Your task to perform on an android device: Go to privacy settings Image 0: 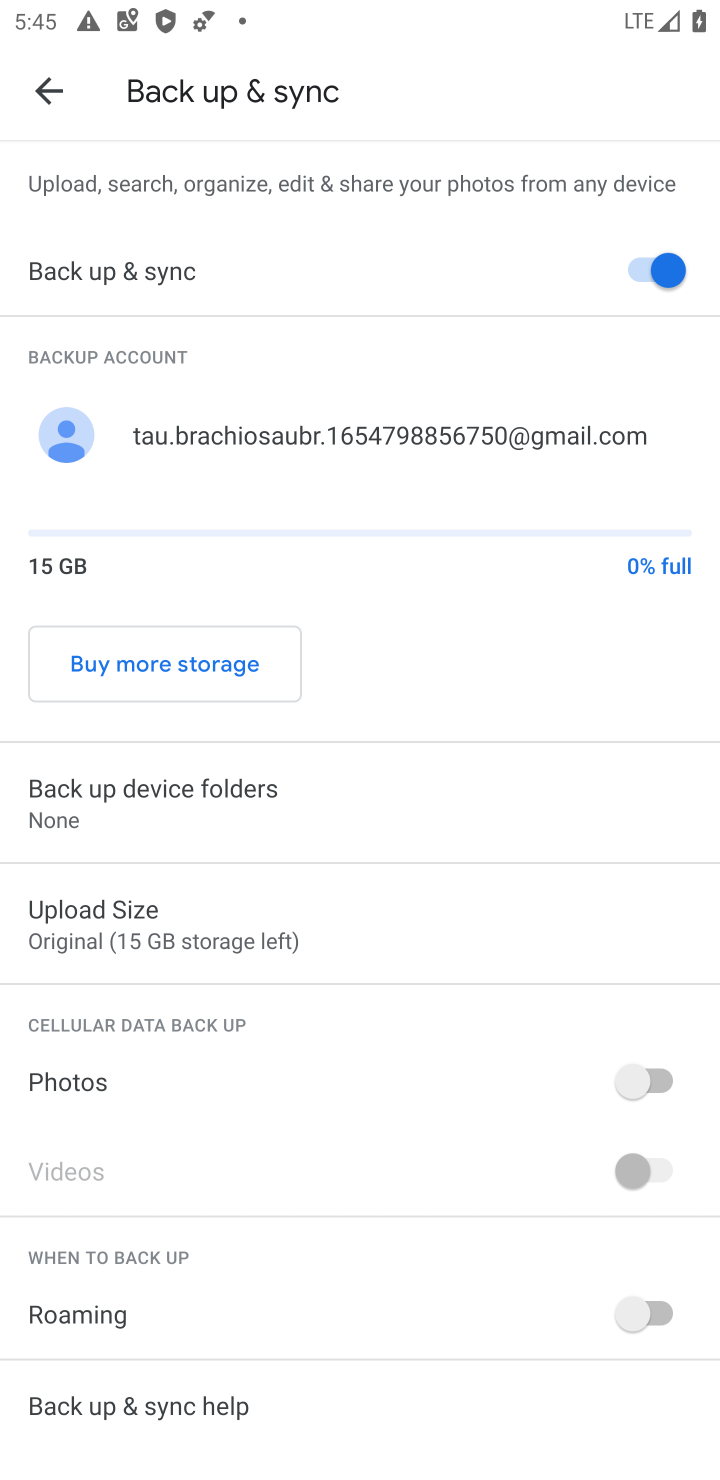
Step 0: press home button
Your task to perform on an android device: Go to privacy settings Image 1: 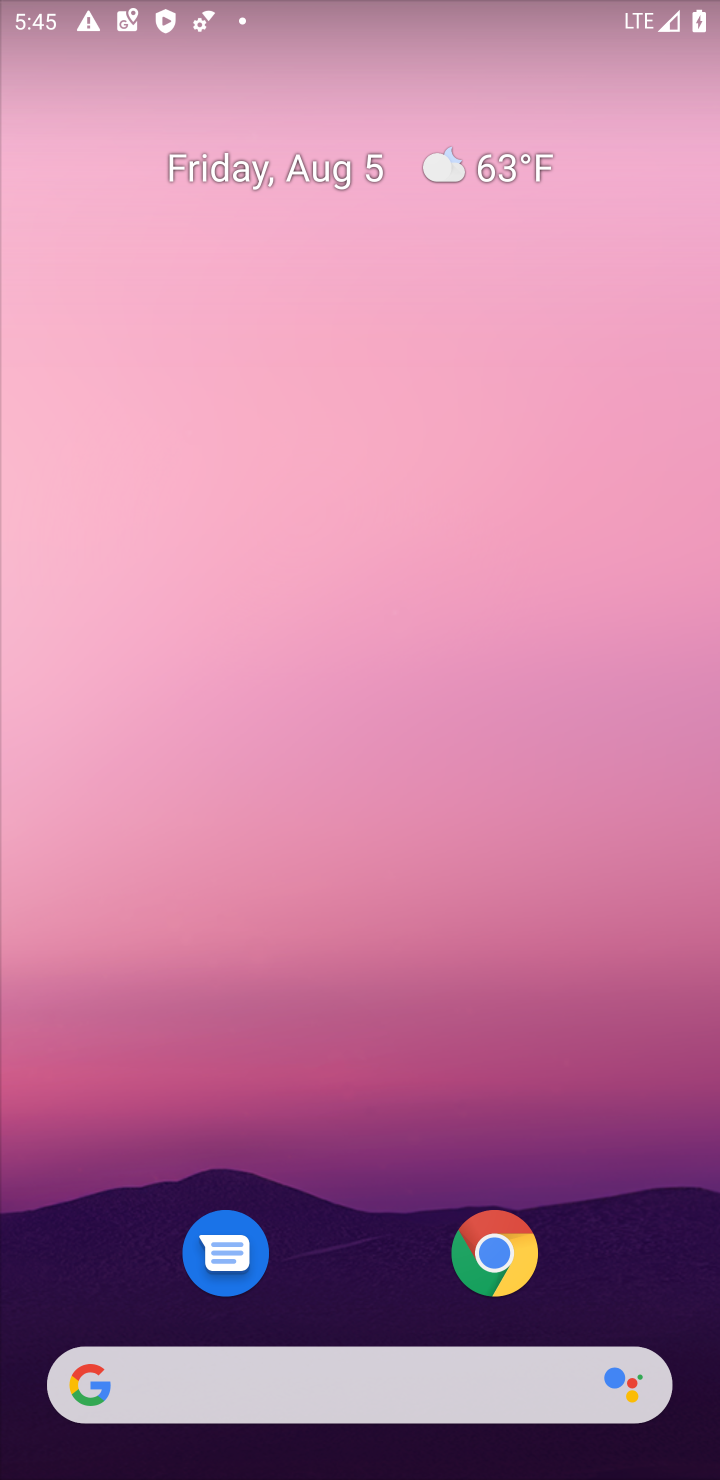
Step 1: drag from (342, 1226) to (393, 374)
Your task to perform on an android device: Go to privacy settings Image 2: 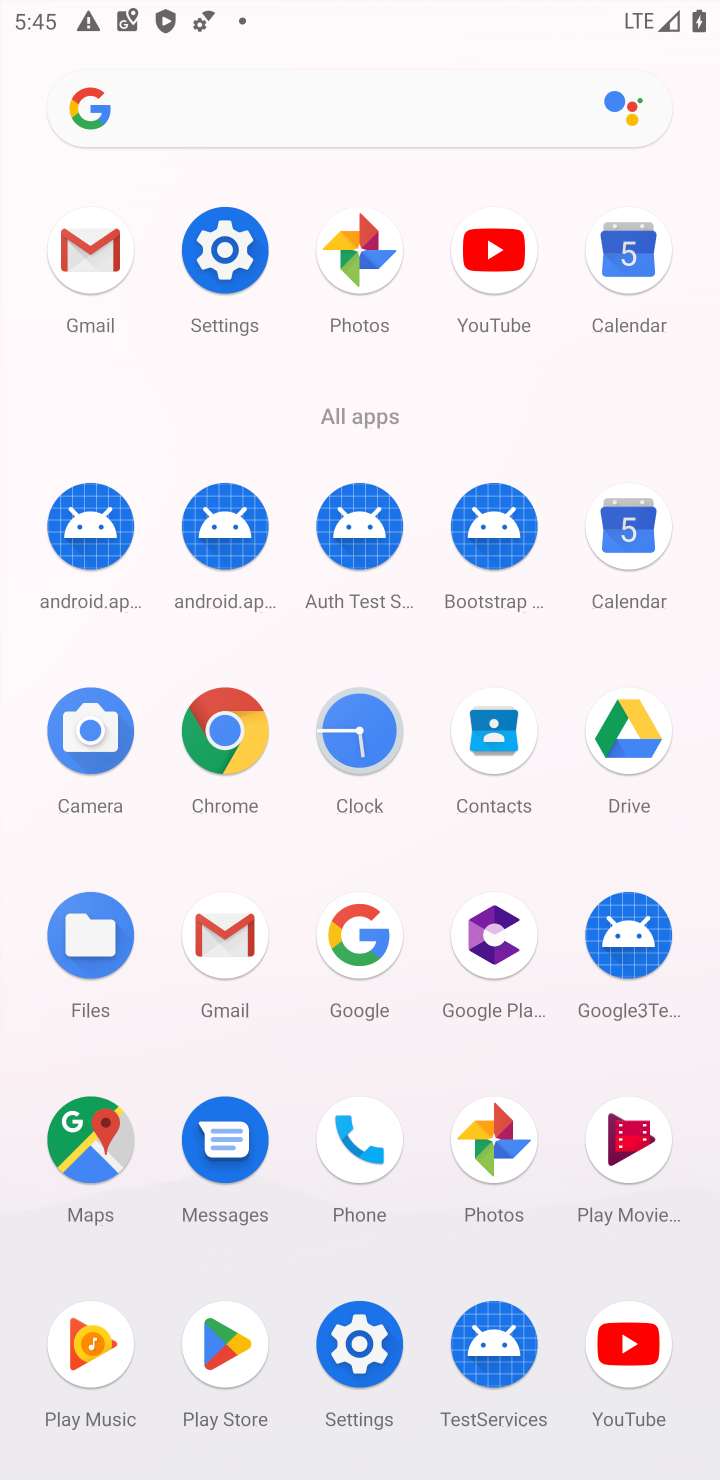
Step 2: click (226, 271)
Your task to perform on an android device: Go to privacy settings Image 3: 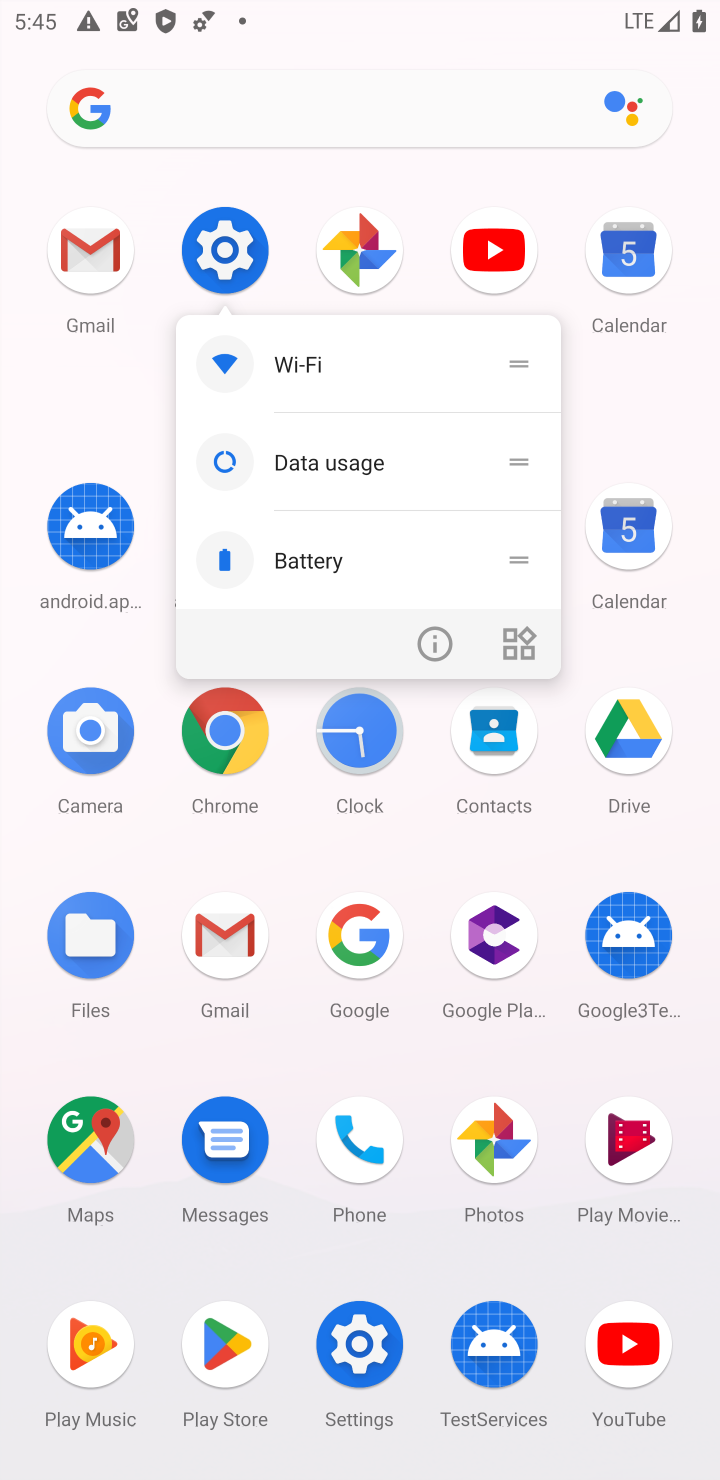
Step 3: click (226, 271)
Your task to perform on an android device: Go to privacy settings Image 4: 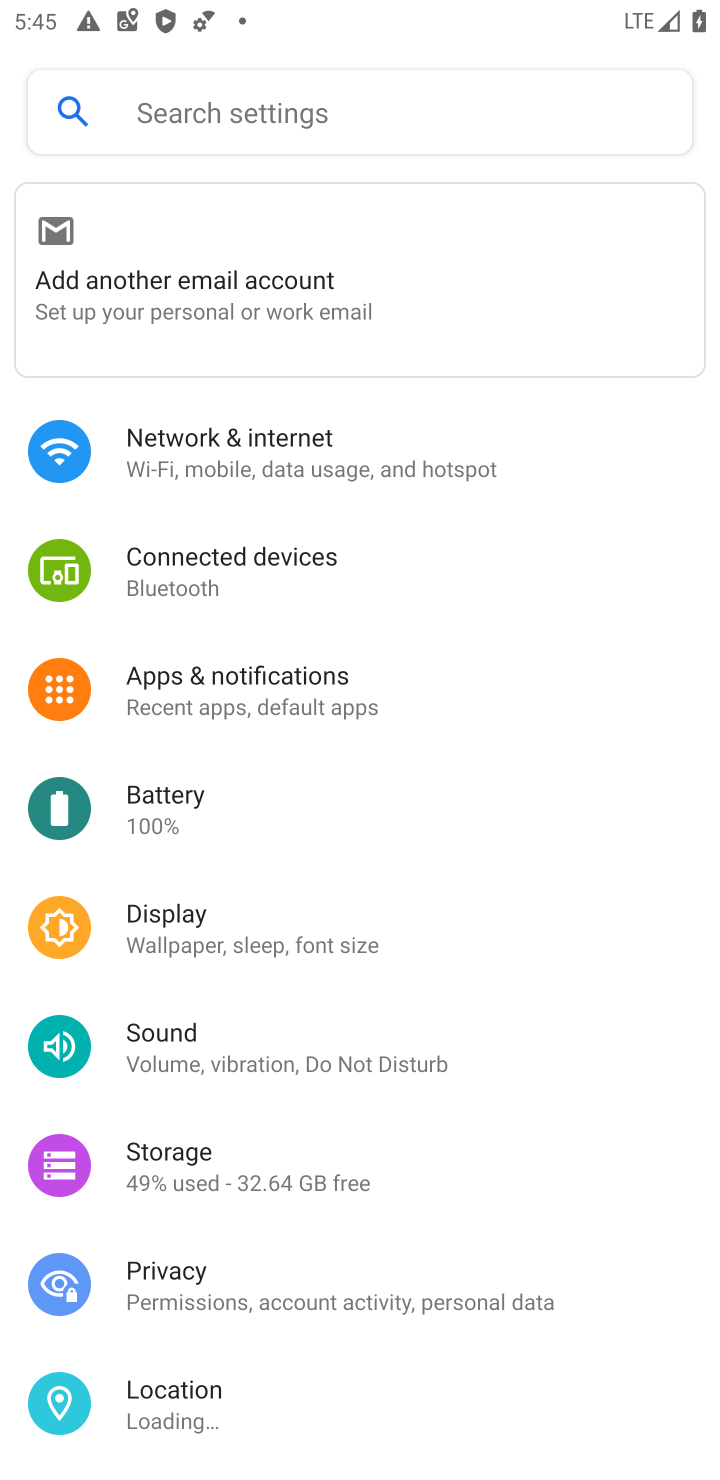
Step 4: click (137, 1287)
Your task to perform on an android device: Go to privacy settings Image 5: 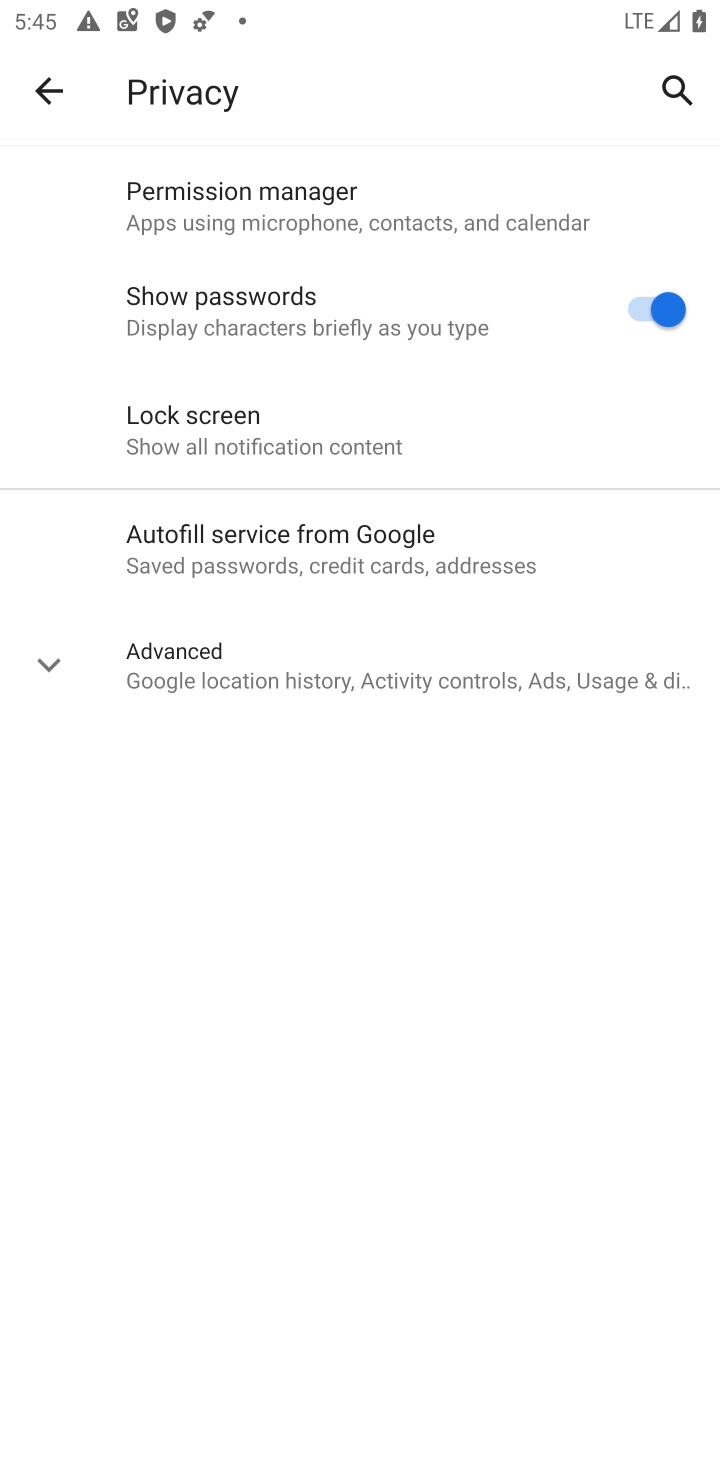
Step 5: task complete